Your task to perform on an android device: open app "Venmo" (install if not already installed) and go to login screen Image 0: 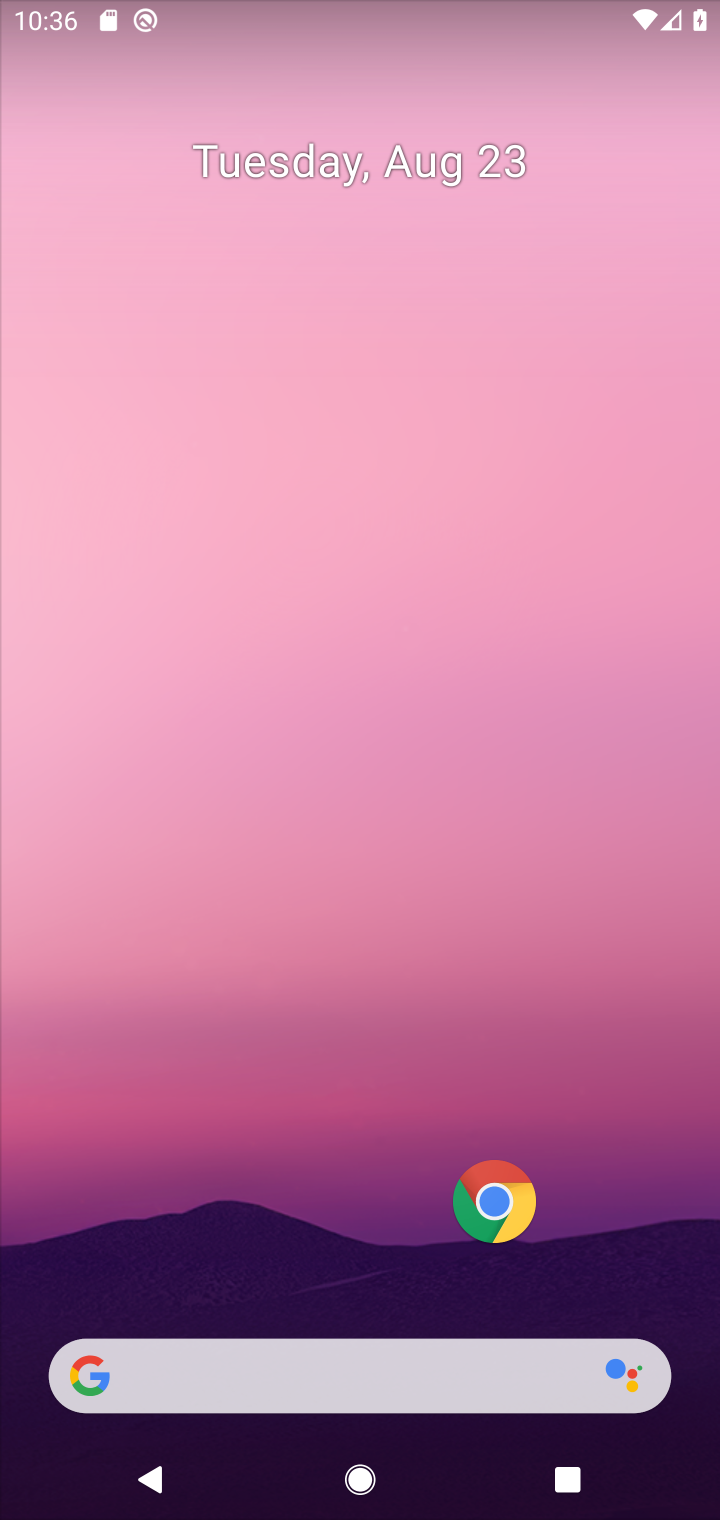
Step 0: click (314, 17)
Your task to perform on an android device: open app "Venmo" (install if not already installed) and go to login screen Image 1: 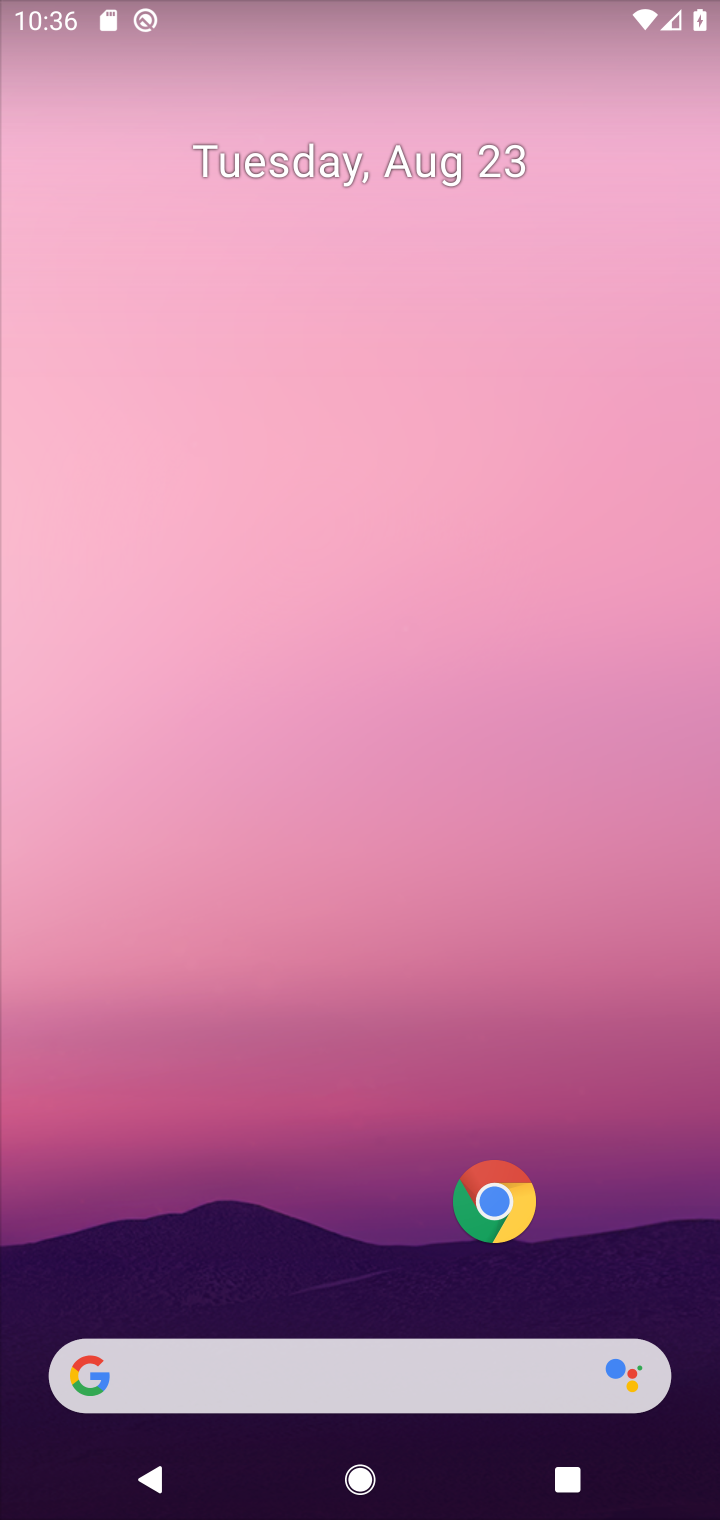
Step 1: drag from (338, 1213) to (443, 480)
Your task to perform on an android device: open app "Venmo" (install if not already installed) and go to login screen Image 2: 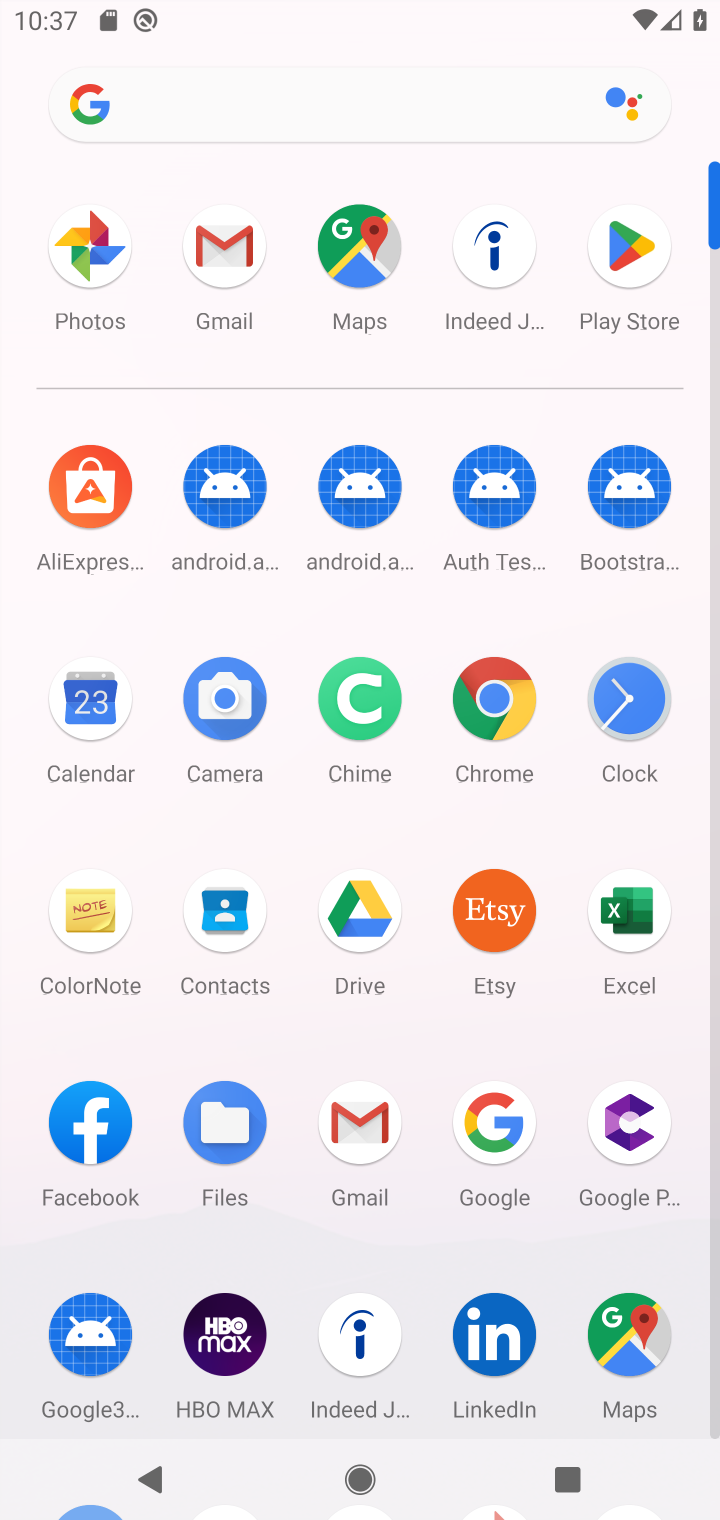
Step 2: click (629, 242)
Your task to perform on an android device: open app "Venmo" (install if not already installed) and go to login screen Image 3: 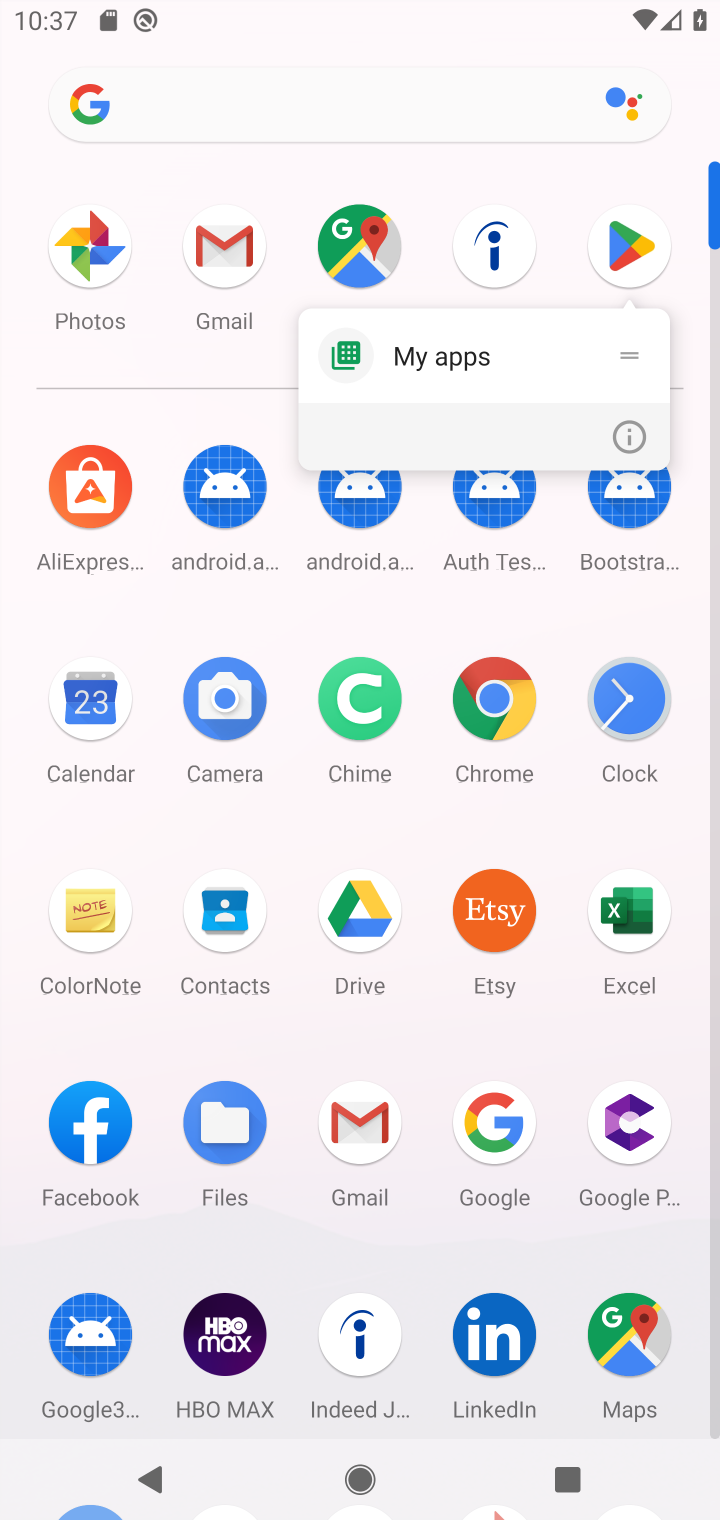
Step 3: click (629, 242)
Your task to perform on an android device: open app "Venmo" (install if not already installed) and go to login screen Image 4: 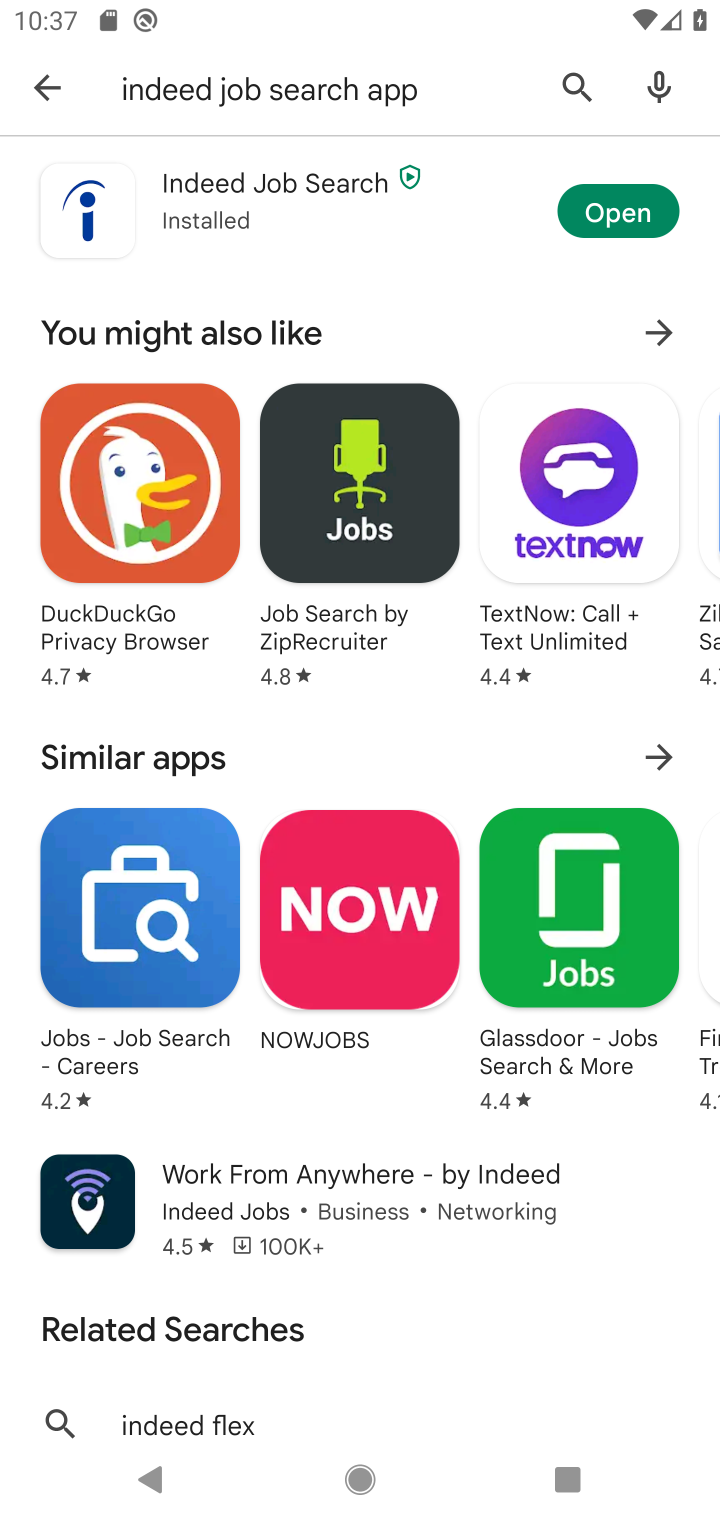
Step 4: click (41, 79)
Your task to perform on an android device: open app "Venmo" (install if not already installed) and go to login screen Image 5: 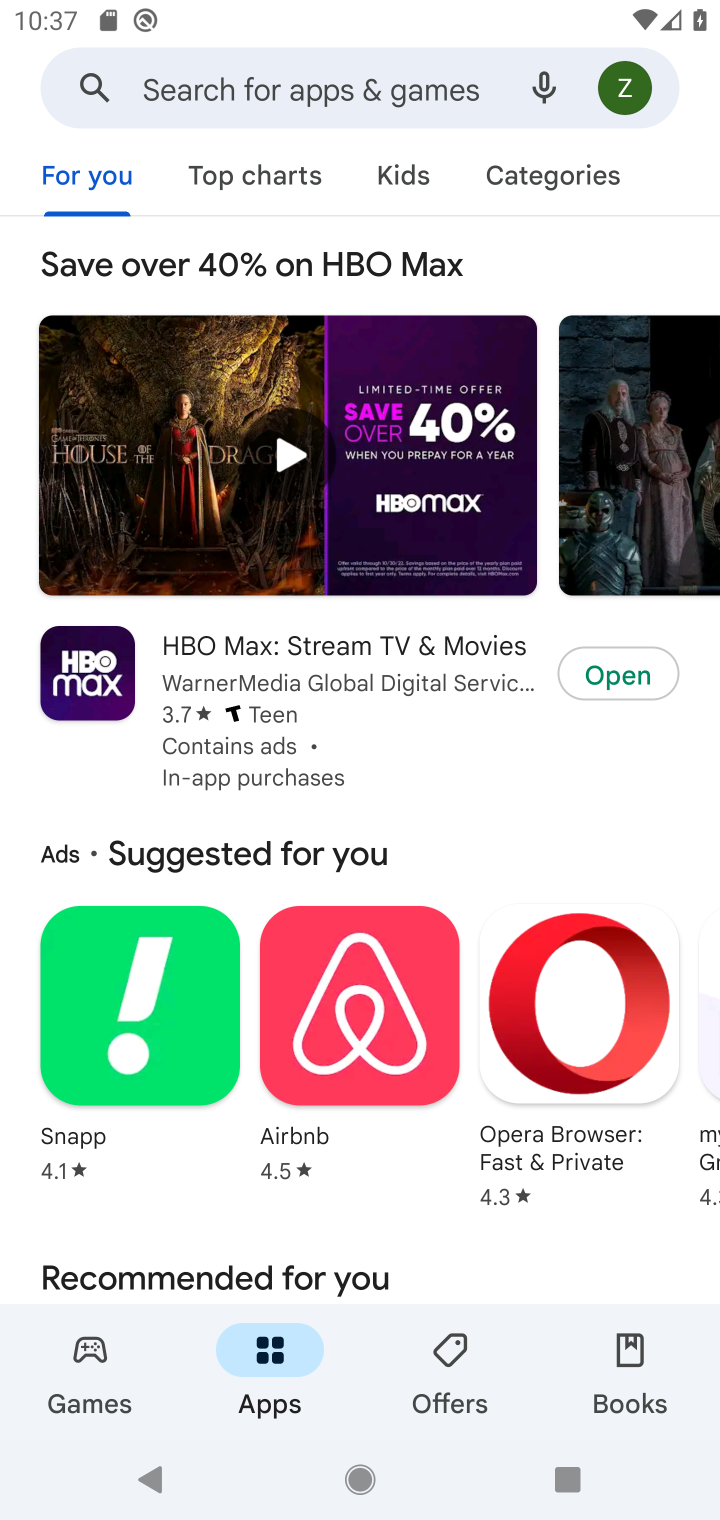
Step 5: click (381, 72)
Your task to perform on an android device: open app "Venmo" (install if not already installed) and go to login screen Image 6: 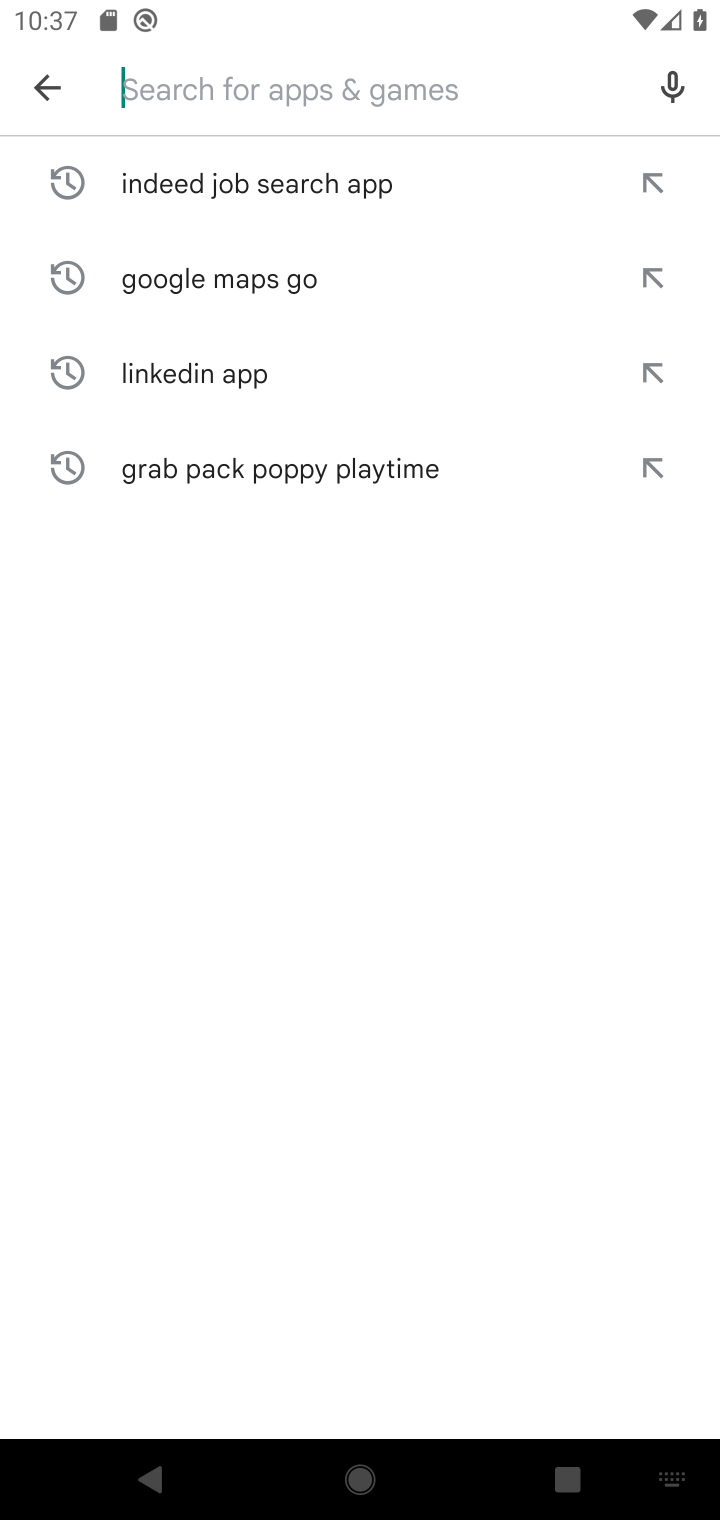
Step 6: type "Venmo "
Your task to perform on an android device: open app "Venmo" (install if not already installed) and go to login screen Image 7: 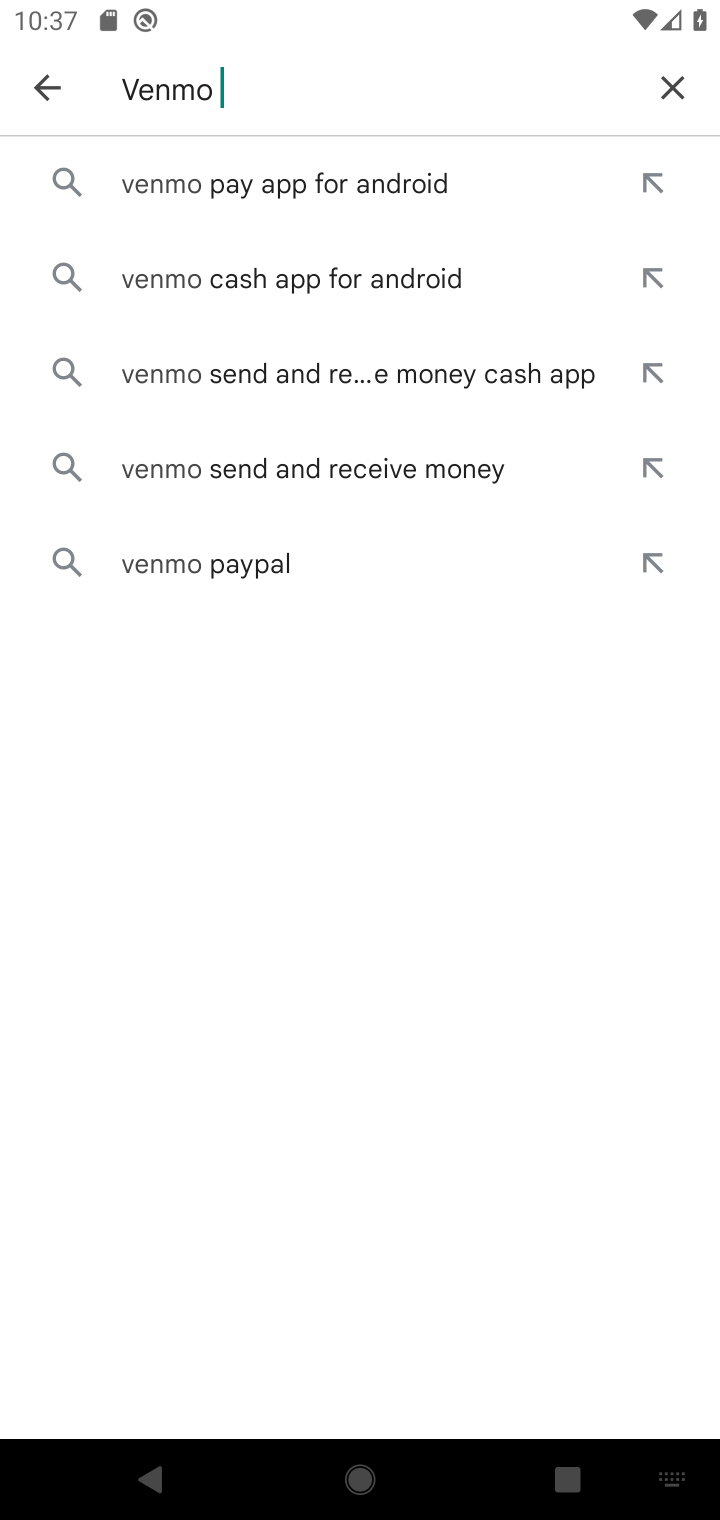
Step 7: click (302, 199)
Your task to perform on an android device: open app "Venmo" (install if not already installed) and go to login screen Image 8: 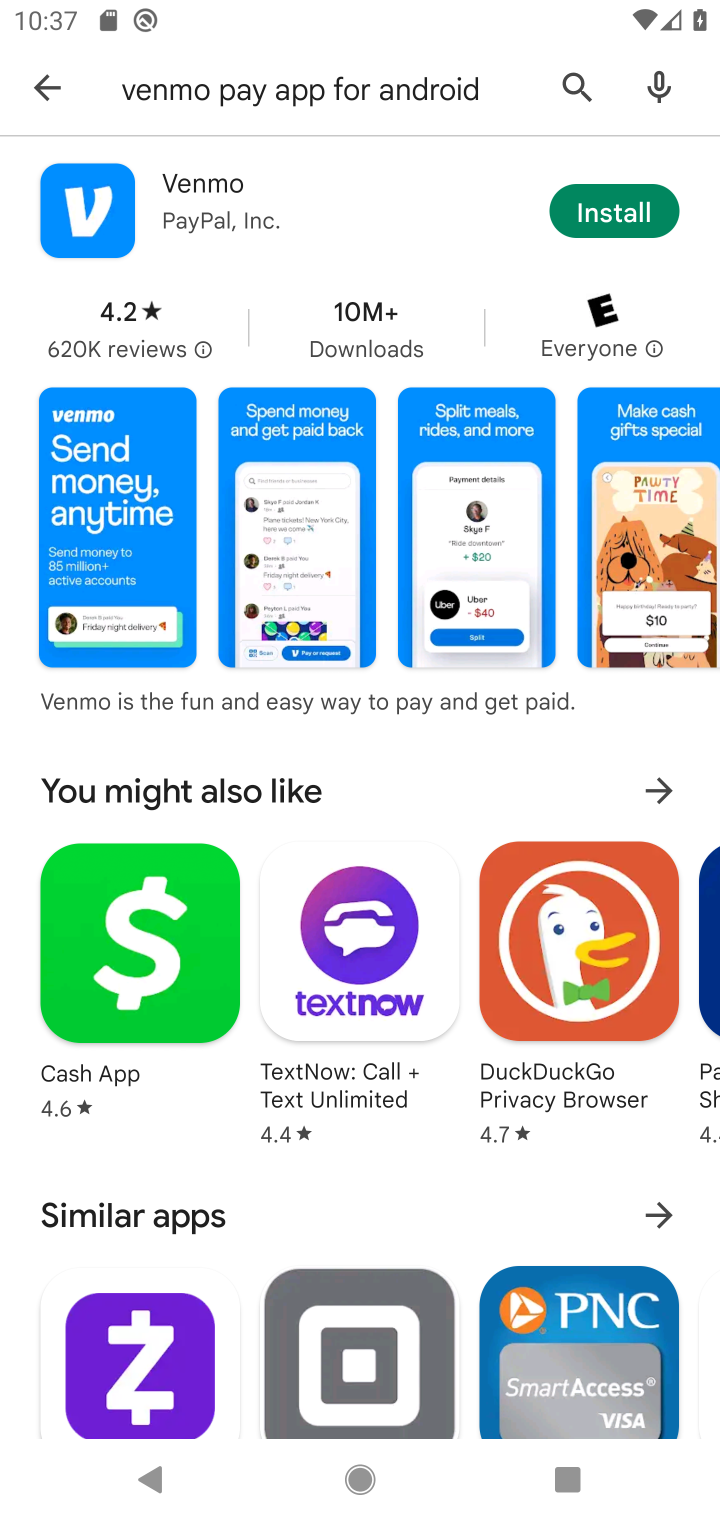
Step 8: click (593, 218)
Your task to perform on an android device: open app "Venmo" (install if not already installed) and go to login screen Image 9: 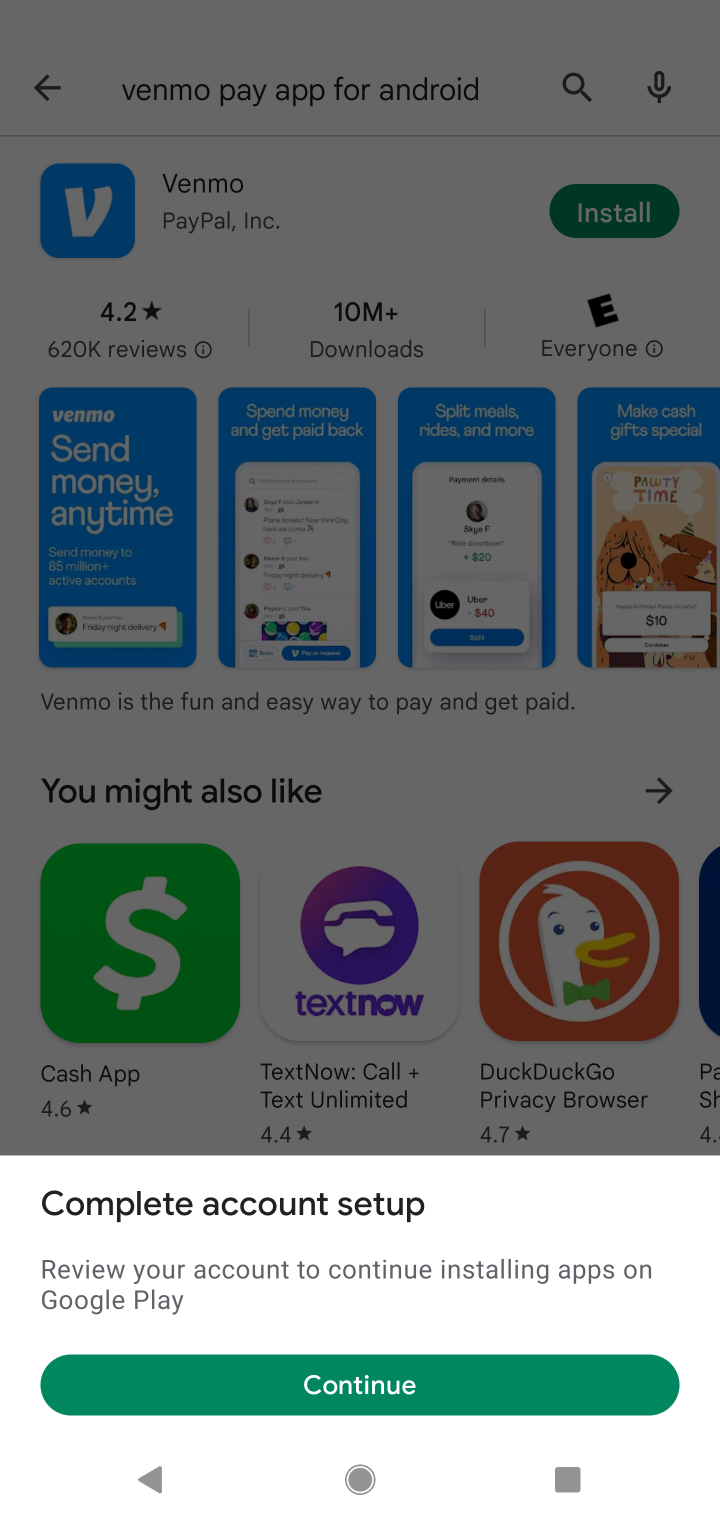
Step 9: task complete